Your task to perform on an android device: Open Chrome and go to settings Image 0: 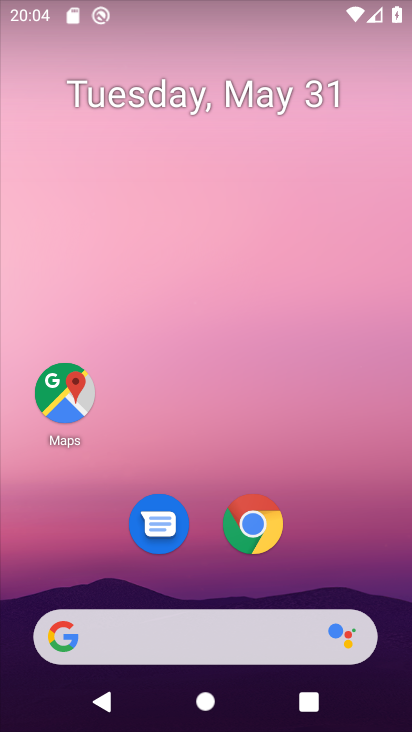
Step 0: click (253, 527)
Your task to perform on an android device: Open Chrome and go to settings Image 1: 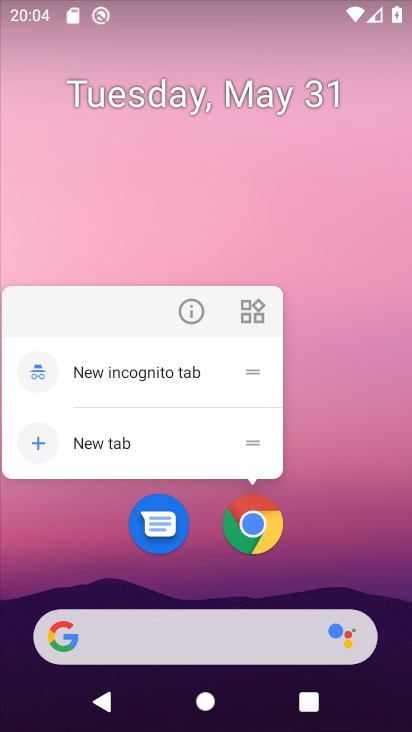
Step 1: click (245, 526)
Your task to perform on an android device: Open Chrome and go to settings Image 2: 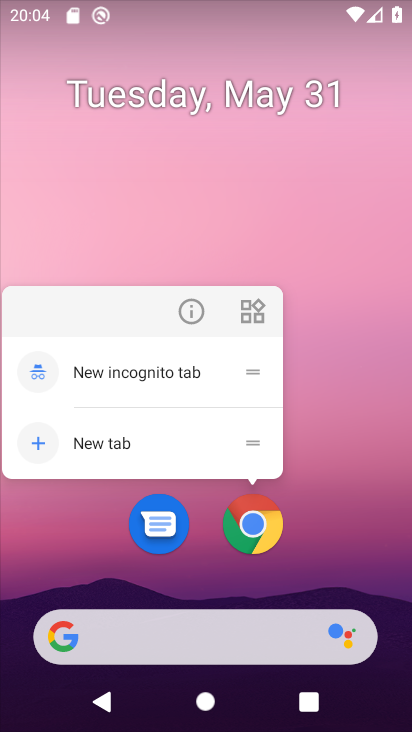
Step 2: click (245, 526)
Your task to perform on an android device: Open Chrome and go to settings Image 3: 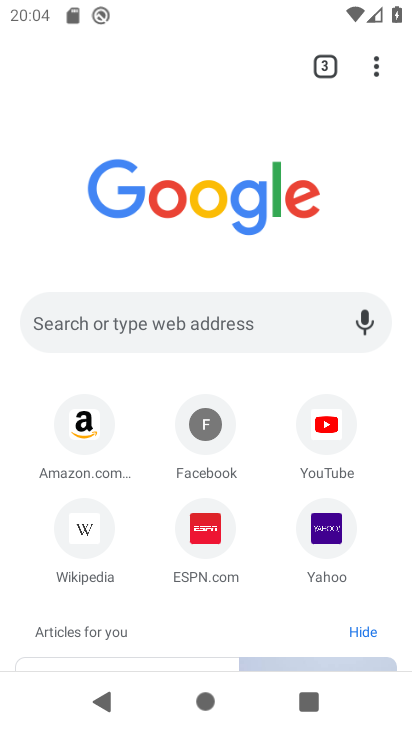
Step 3: click (372, 70)
Your task to perform on an android device: Open Chrome and go to settings Image 4: 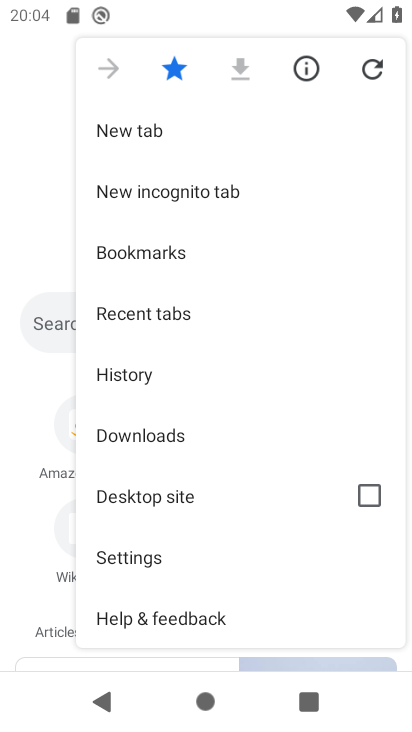
Step 4: click (144, 549)
Your task to perform on an android device: Open Chrome and go to settings Image 5: 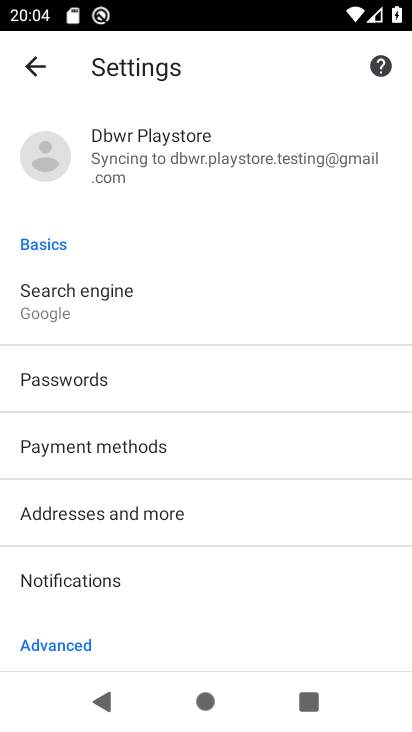
Step 5: task complete